Your task to perform on an android device: check storage Image 0: 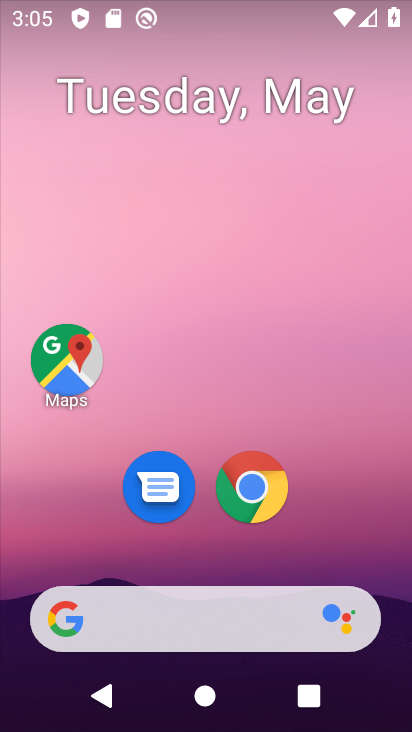
Step 0: drag from (201, 548) to (208, 51)
Your task to perform on an android device: check storage Image 1: 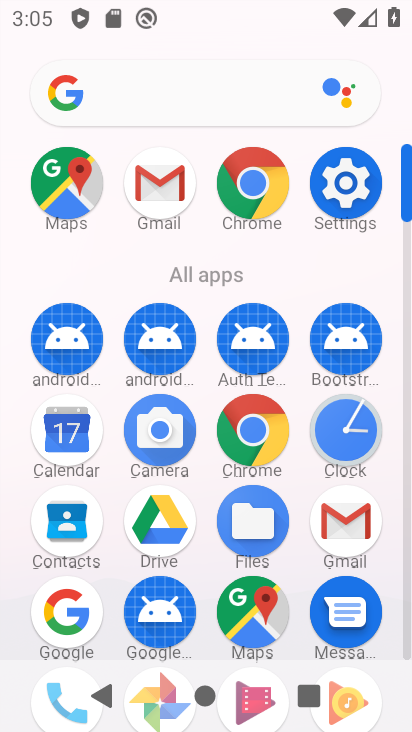
Step 1: click (330, 180)
Your task to perform on an android device: check storage Image 2: 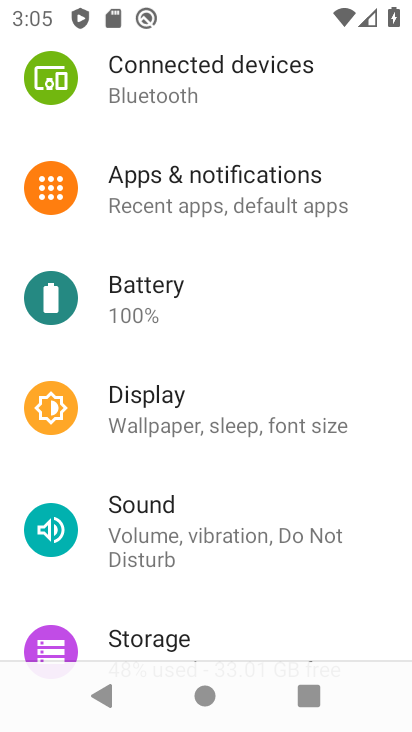
Step 2: click (163, 633)
Your task to perform on an android device: check storage Image 3: 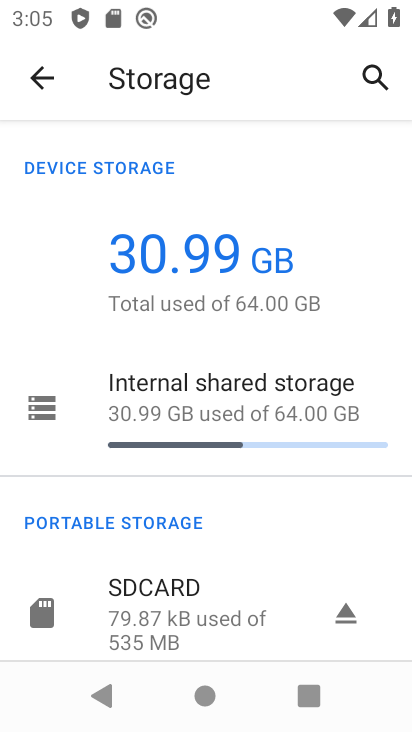
Step 3: task complete